Your task to perform on an android device: Go to internet settings Image 0: 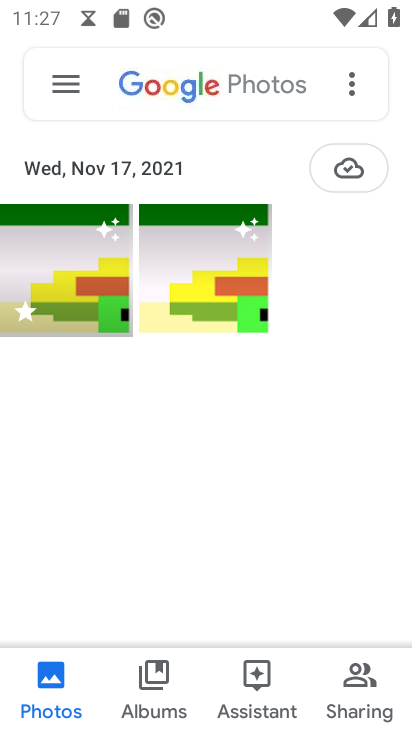
Step 0: press home button
Your task to perform on an android device: Go to internet settings Image 1: 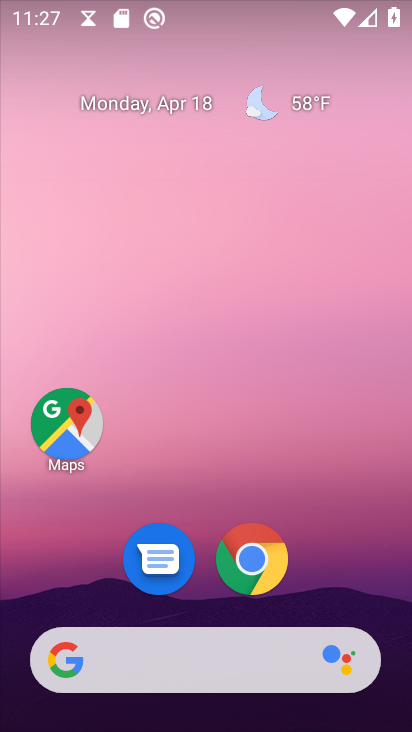
Step 1: drag from (332, 572) to (305, 98)
Your task to perform on an android device: Go to internet settings Image 2: 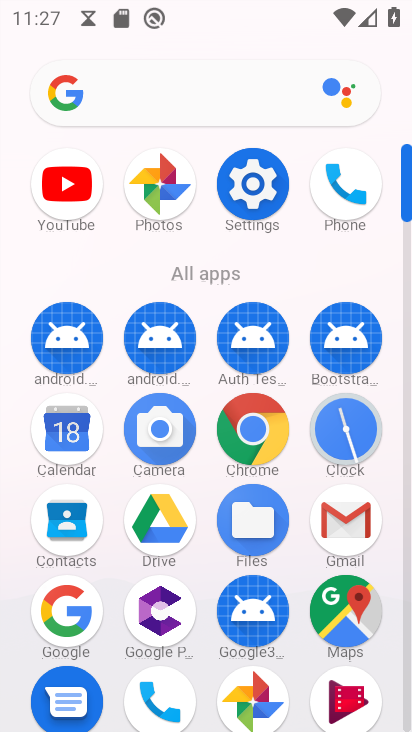
Step 2: click (268, 192)
Your task to perform on an android device: Go to internet settings Image 3: 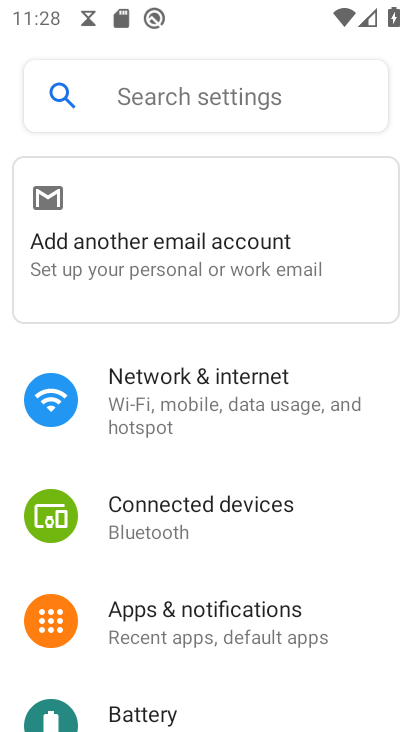
Step 3: click (154, 422)
Your task to perform on an android device: Go to internet settings Image 4: 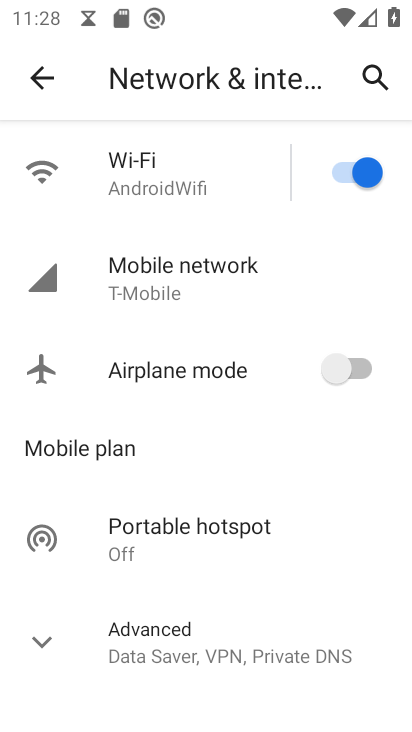
Step 4: task complete